Your task to perform on an android device: delete a single message in the gmail app Image 0: 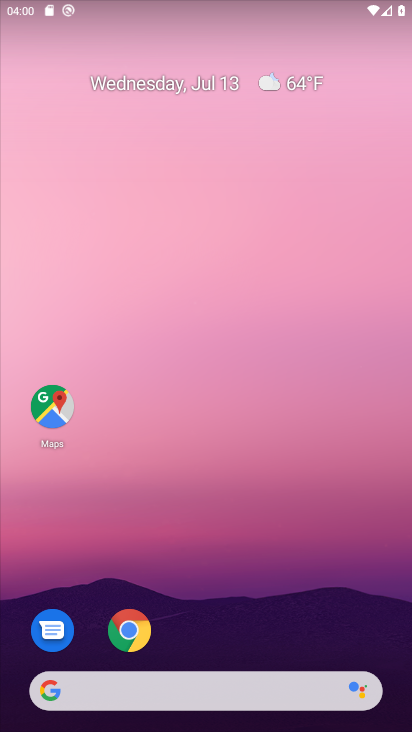
Step 0: drag from (227, 657) to (175, 81)
Your task to perform on an android device: delete a single message in the gmail app Image 1: 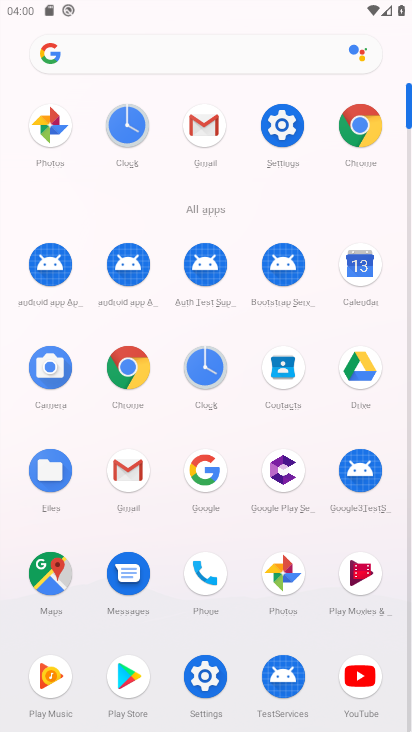
Step 1: click (212, 124)
Your task to perform on an android device: delete a single message in the gmail app Image 2: 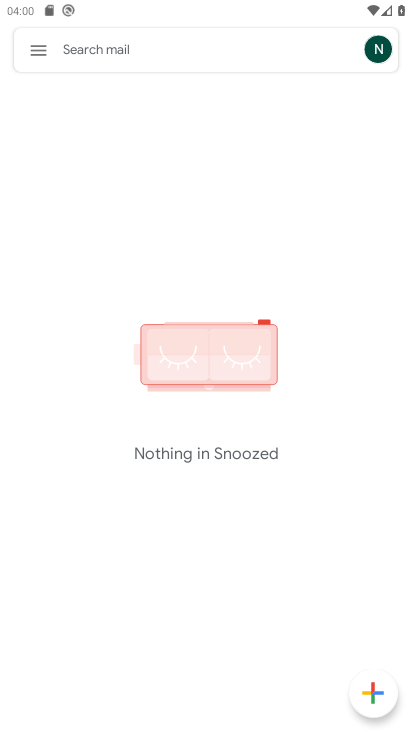
Step 2: click (31, 49)
Your task to perform on an android device: delete a single message in the gmail app Image 3: 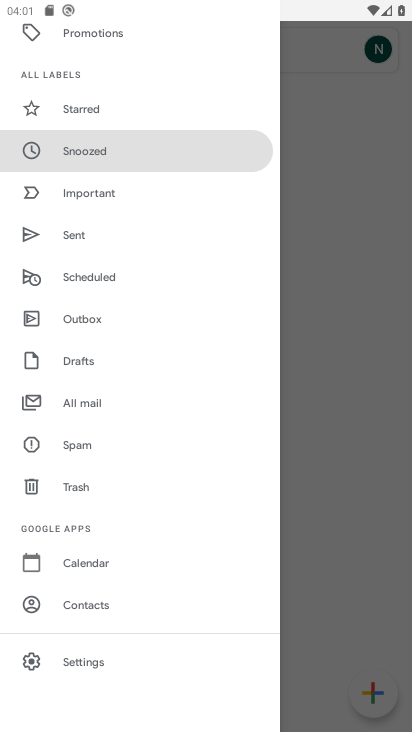
Step 3: click (118, 409)
Your task to perform on an android device: delete a single message in the gmail app Image 4: 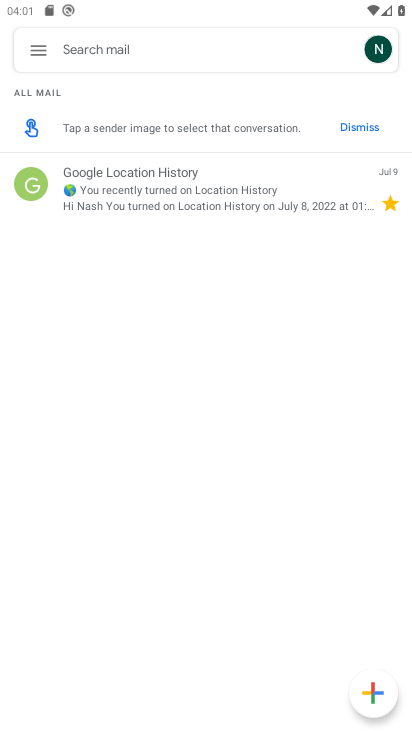
Step 4: click (35, 182)
Your task to perform on an android device: delete a single message in the gmail app Image 5: 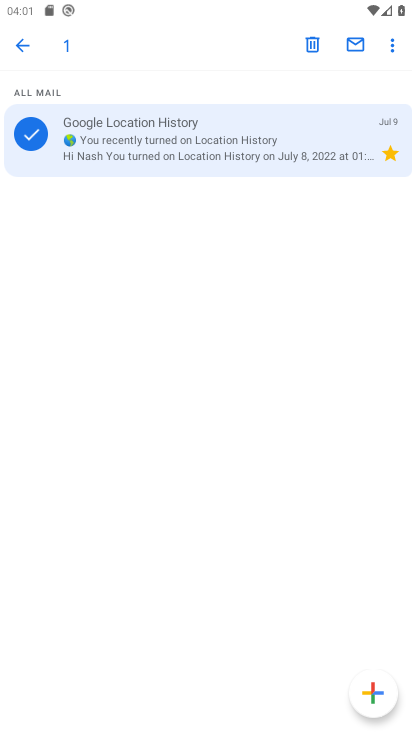
Step 5: click (320, 42)
Your task to perform on an android device: delete a single message in the gmail app Image 6: 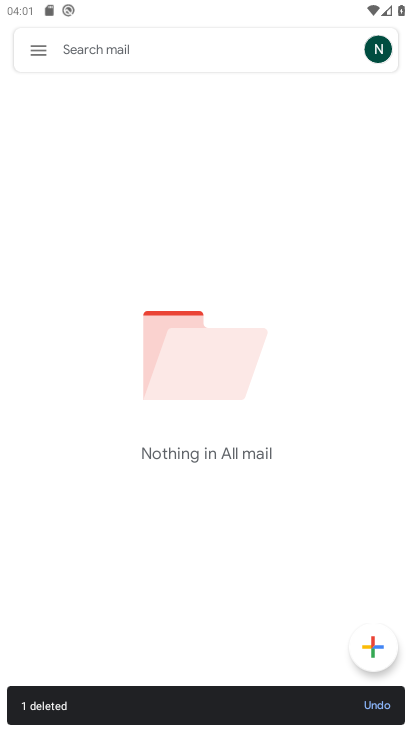
Step 6: task complete